Your task to perform on an android device: remove spam from my inbox in the gmail app Image 0: 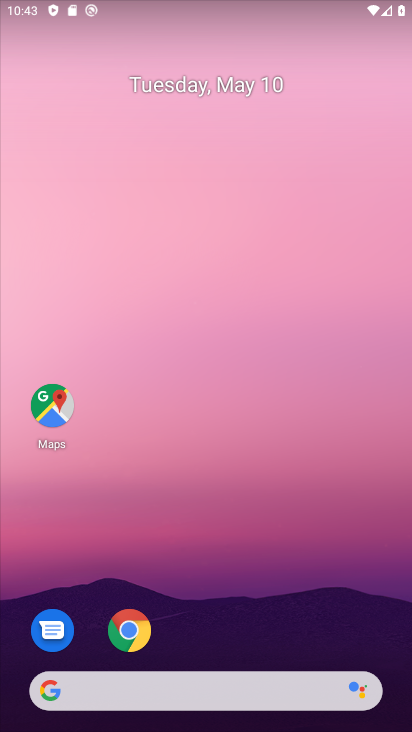
Step 0: drag from (197, 657) to (266, 173)
Your task to perform on an android device: remove spam from my inbox in the gmail app Image 1: 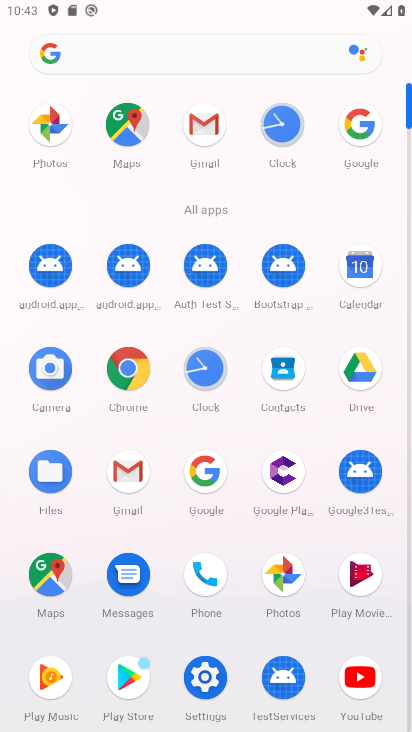
Step 1: click (117, 479)
Your task to perform on an android device: remove spam from my inbox in the gmail app Image 2: 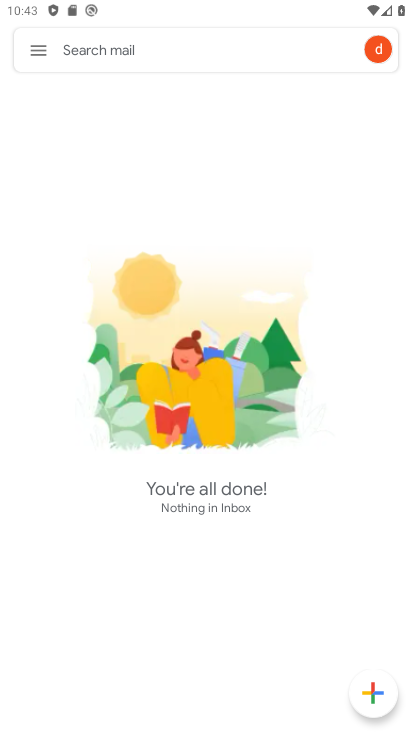
Step 2: click (36, 57)
Your task to perform on an android device: remove spam from my inbox in the gmail app Image 3: 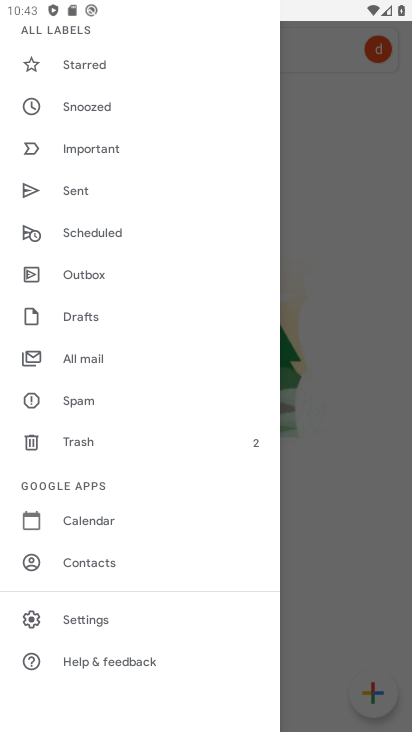
Step 3: click (123, 401)
Your task to perform on an android device: remove spam from my inbox in the gmail app Image 4: 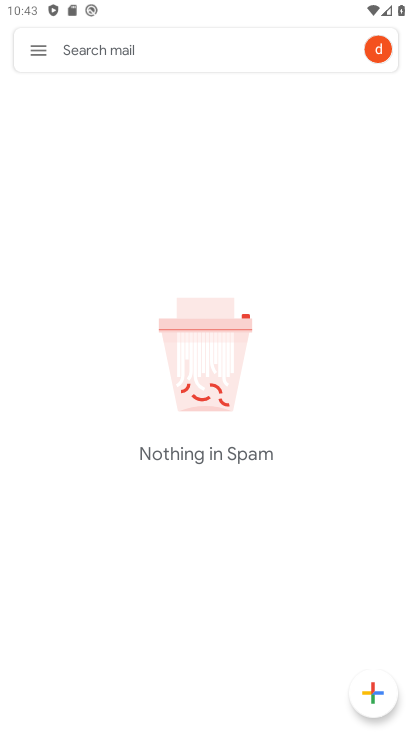
Step 4: task complete